Your task to perform on an android device: Turn on the flashlight Image 0: 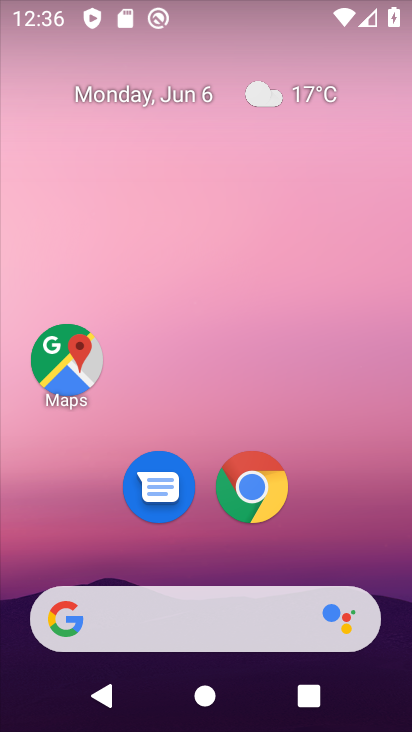
Step 0: drag from (206, 478) to (245, 37)
Your task to perform on an android device: Turn on the flashlight Image 1: 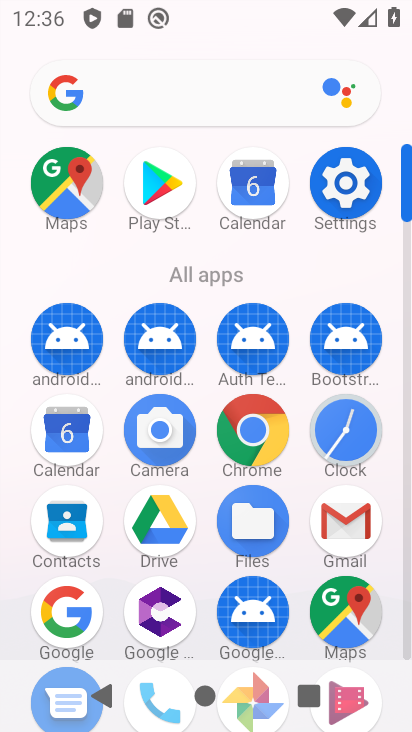
Step 1: click (338, 170)
Your task to perform on an android device: Turn on the flashlight Image 2: 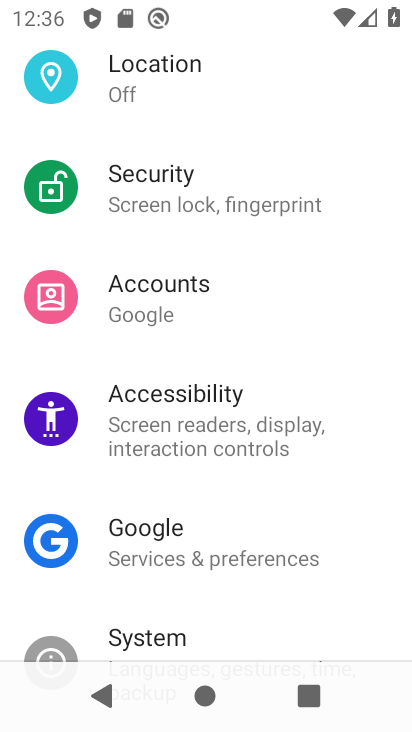
Step 2: drag from (163, 129) to (206, 662)
Your task to perform on an android device: Turn on the flashlight Image 3: 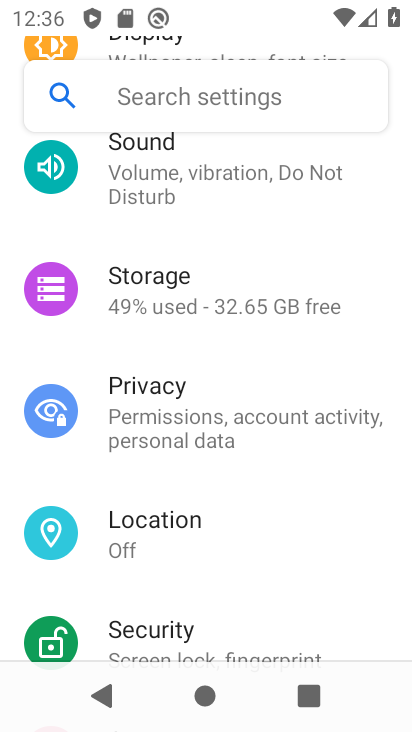
Step 3: click (142, 92)
Your task to perform on an android device: Turn on the flashlight Image 4: 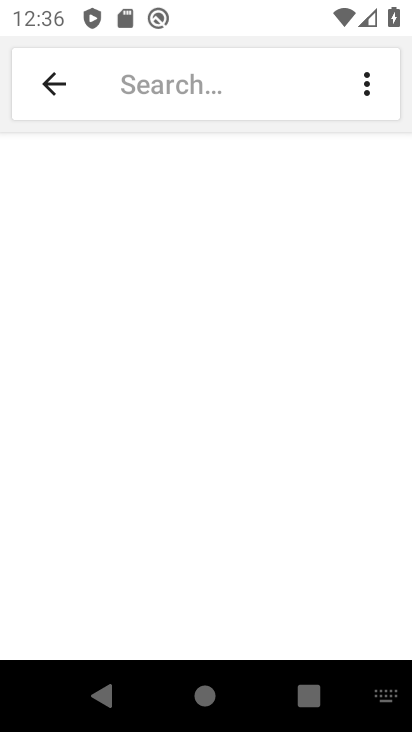
Step 4: type "flashlight"
Your task to perform on an android device: Turn on the flashlight Image 5: 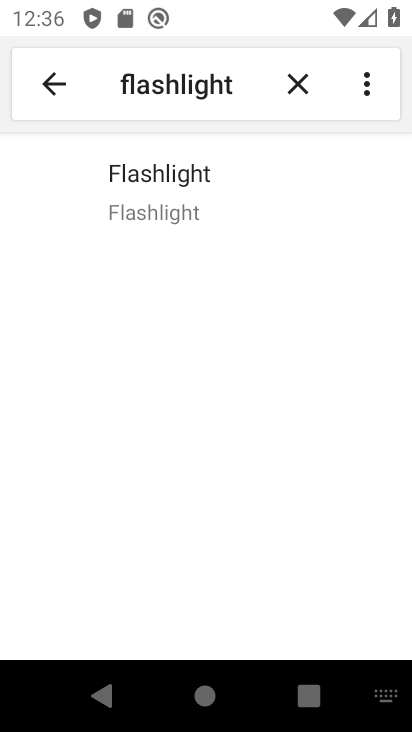
Step 5: click (176, 179)
Your task to perform on an android device: Turn on the flashlight Image 6: 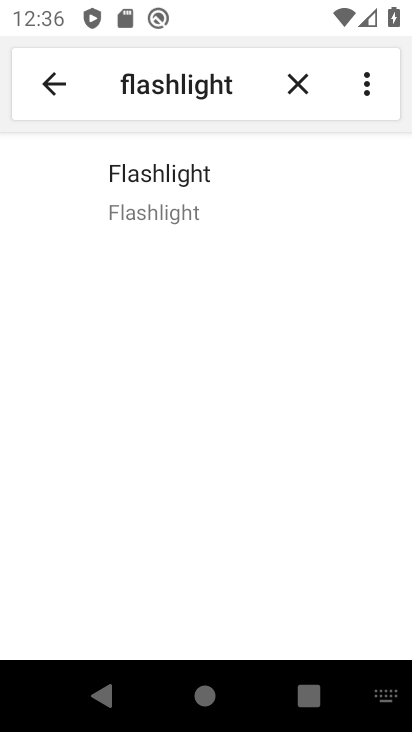
Step 6: task complete